Your task to perform on an android device: Go to Maps Image 0: 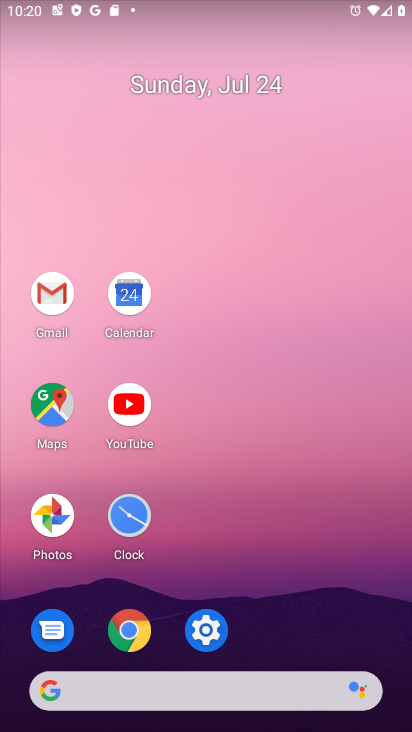
Step 0: click (44, 397)
Your task to perform on an android device: Go to Maps Image 1: 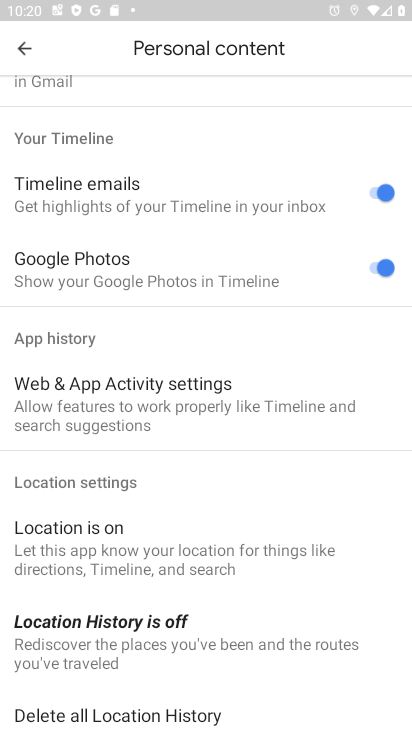
Step 1: click (30, 45)
Your task to perform on an android device: Go to Maps Image 2: 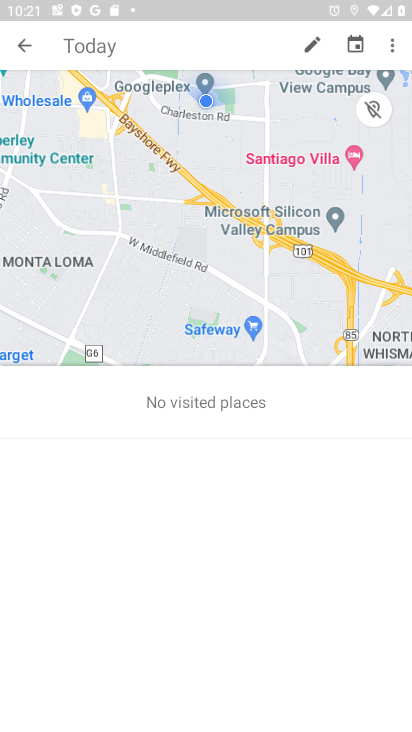
Step 2: click (25, 44)
Your task to perform on an android device: Go to Maps Image 3: 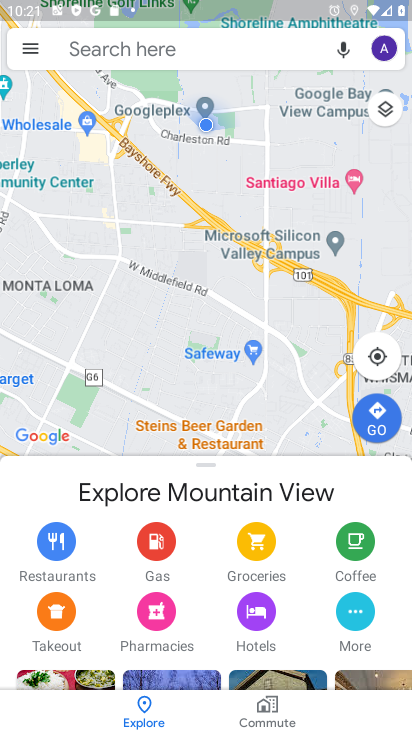
Step 3: task complete